Your task to perform on an android device: turn on the 24-hour format for clock Image 0: 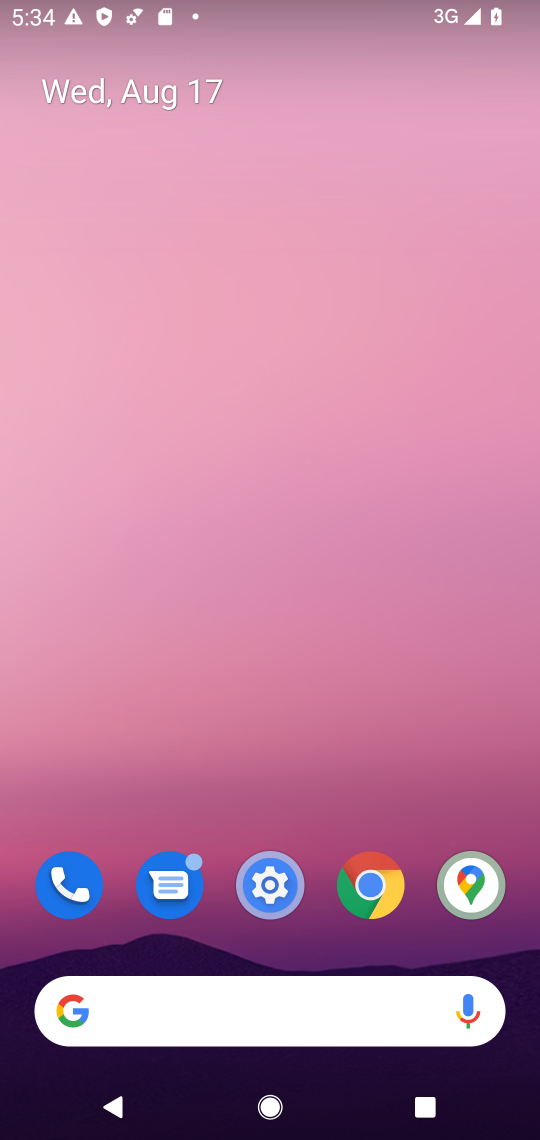
Step 0: drag from (266, 794) to (446, 11)
Your task to perform on an android device: turn on the 24-hour format for clock Image 1: 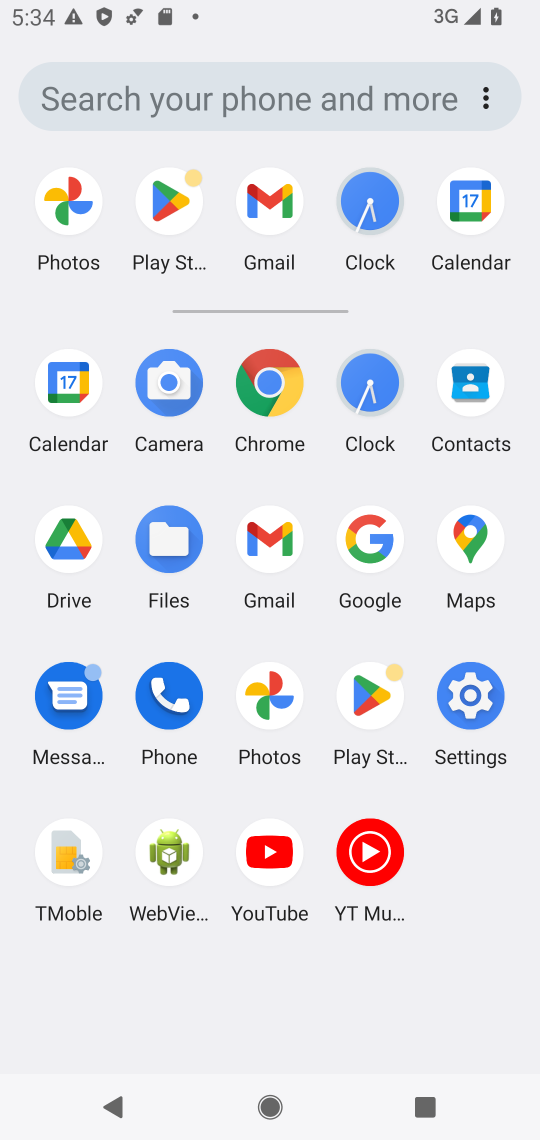
Step 1: click (375, 382)
Your task to perform on an android device: turn on the 24-hour format for clock Image 2: 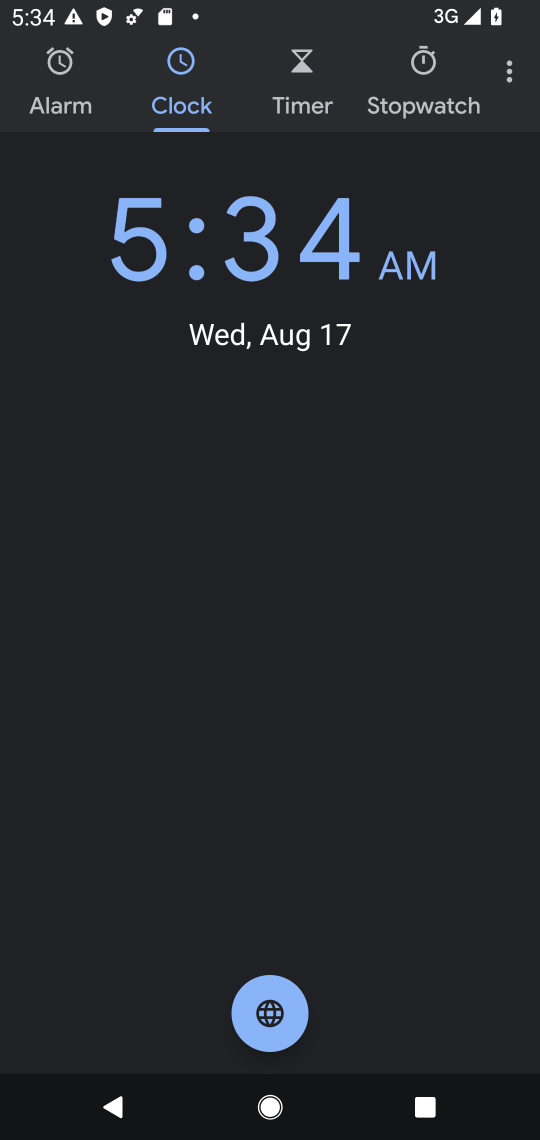
Step 2: click (522, 76)
Your task to perform on an android device: turn on the 24-hour format for clock Image 3: 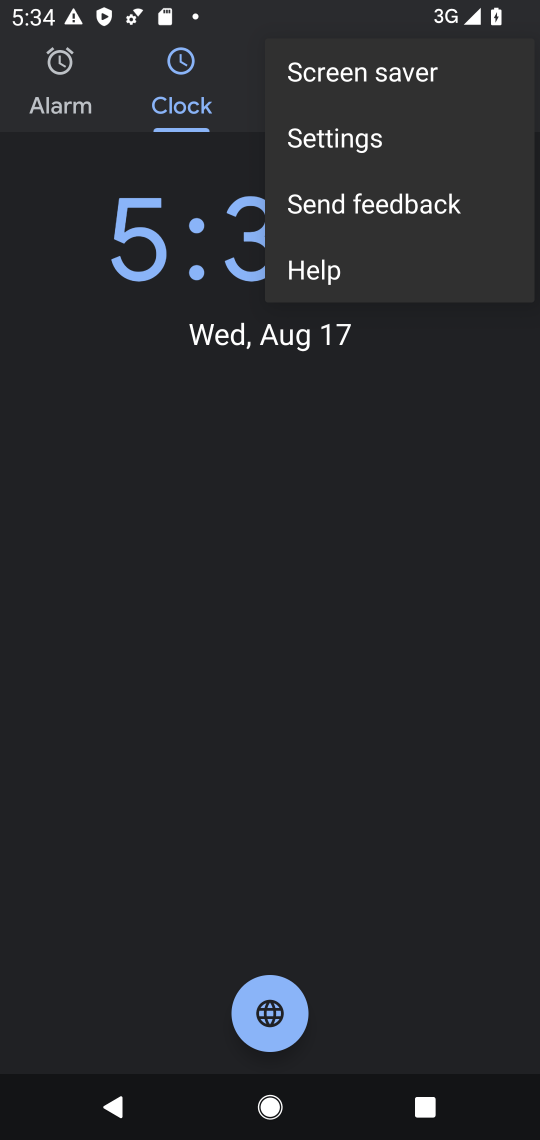
Step 3: click (377, 126)
Your task to perform on an android device: turn on the 24-hour format for clock Image 4: 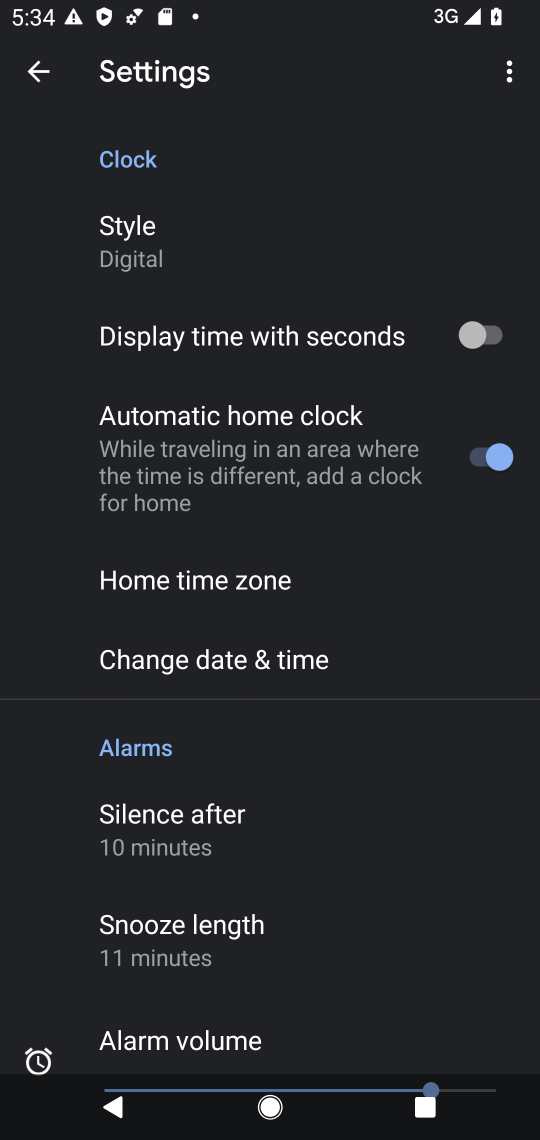
Step 4: drag from (292, 931) to (329, 663)
Your task to perform on an android device: turn on the 24-hour format for clock Image 5: 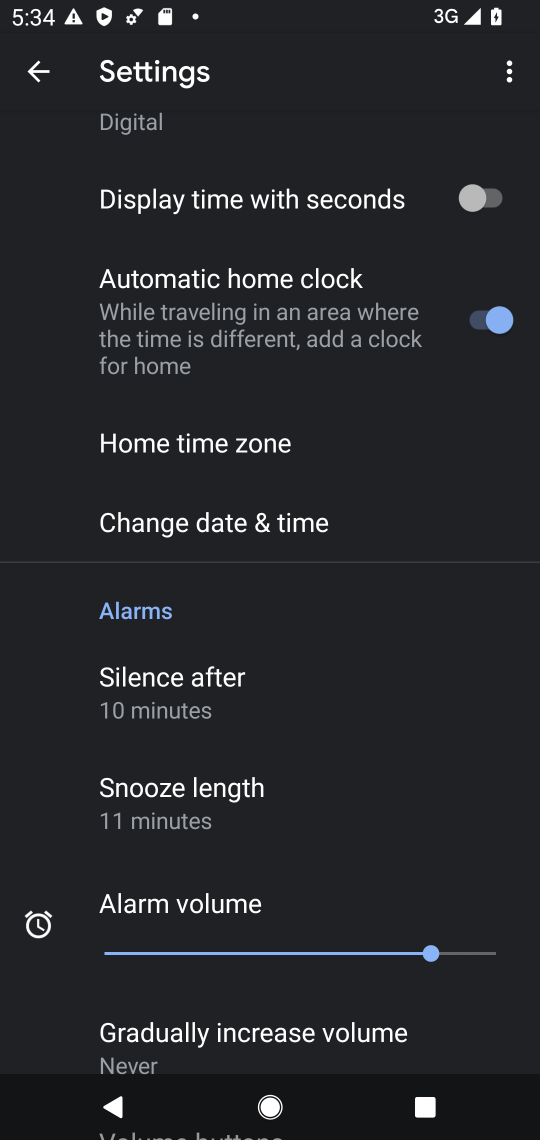
Step 5: click (304, 527)
Your task to perform on an android device: turn on the 24-hour format for clock Image 6: 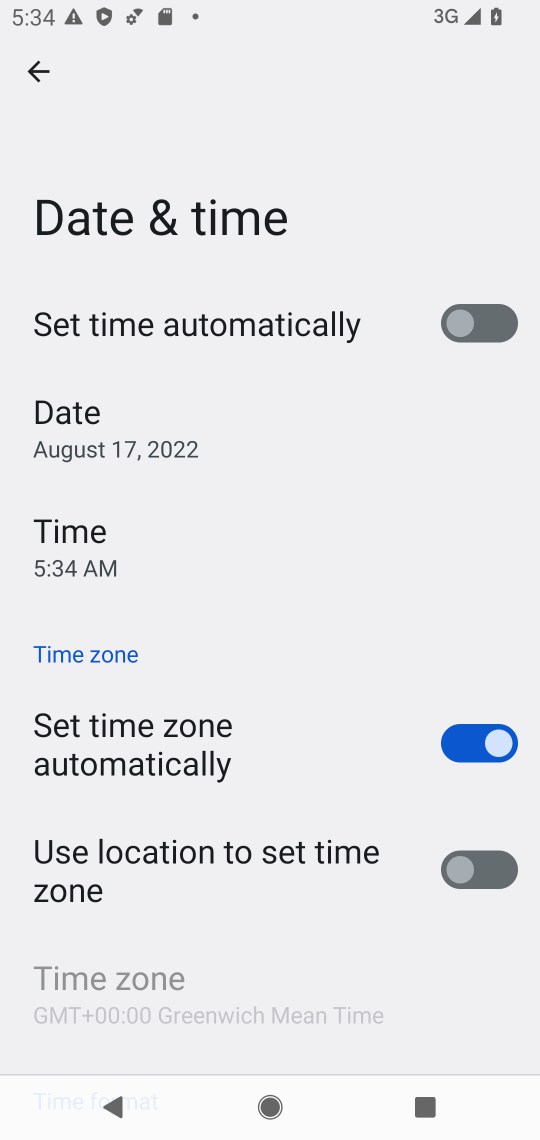
Step 6: drag from (272, 931) to (459, 301)
Your task to perform on an android device: turn on the 24-hour format for clock Image 7: 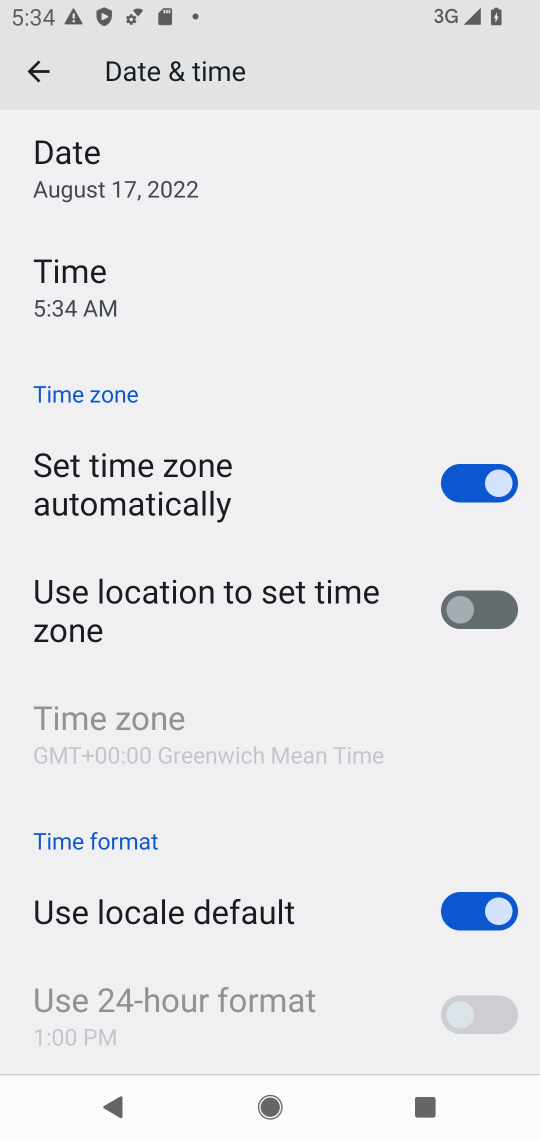
Step 7: drag from (370, 827) to (407, 225)
Your task to perform on an android device: turn on the 24-hour format for clock Image 8: 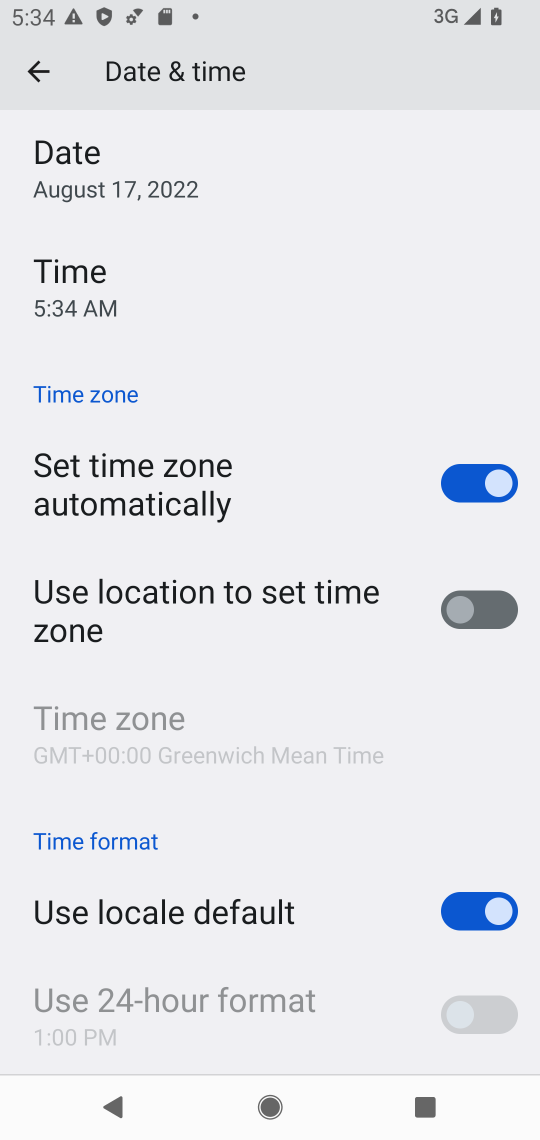
Step 8: click (481, 883)
Your task to perform on an android device: turn on the 24-hour format for clock Image 9: 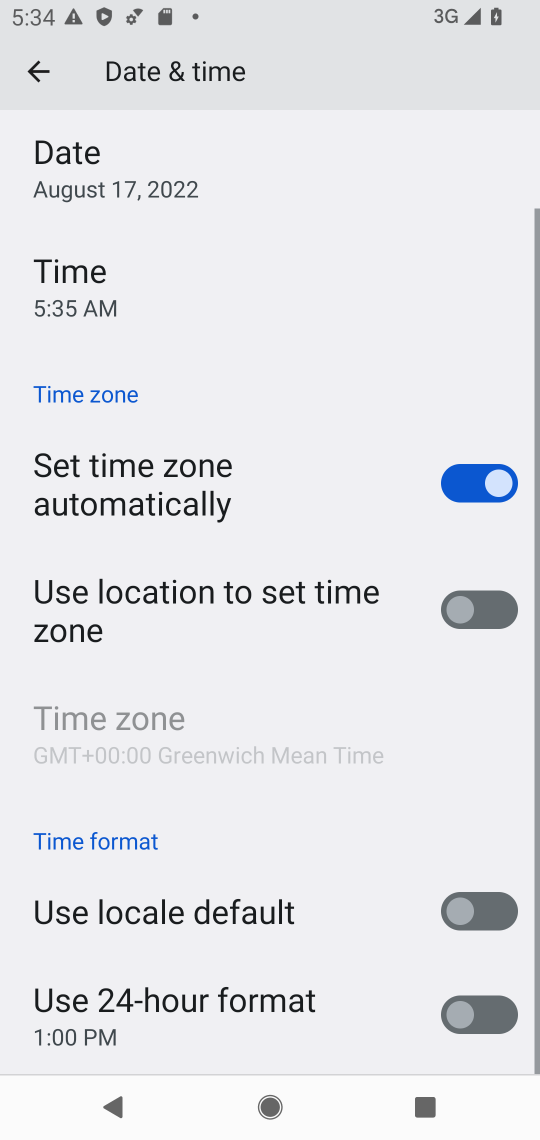
Step 9: click (492, 1002)
Your task to perform on an android device: turn on the 24-hour format for clock Image 10: 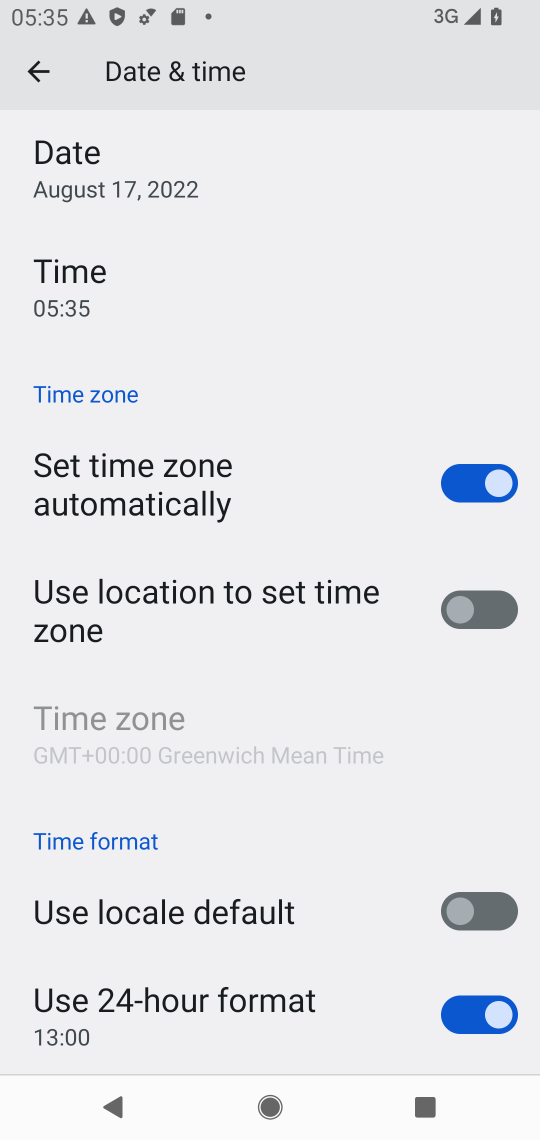
Step 10: task complete